Your task to perform on an android device: Go to Reddit Image 0: 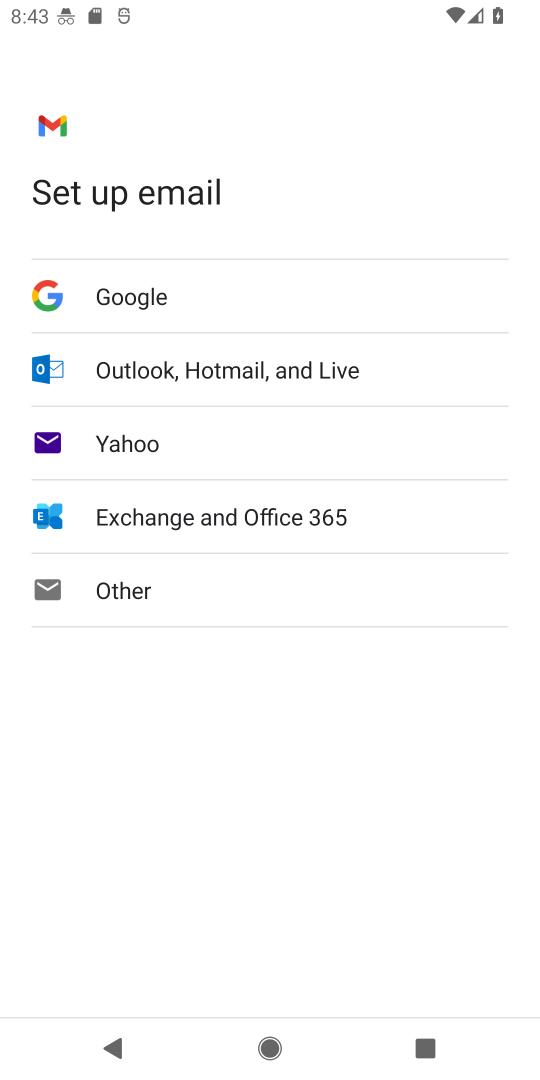
Step 0: press home button
Your task to perform on an android device: Go to Reddit Image 1: 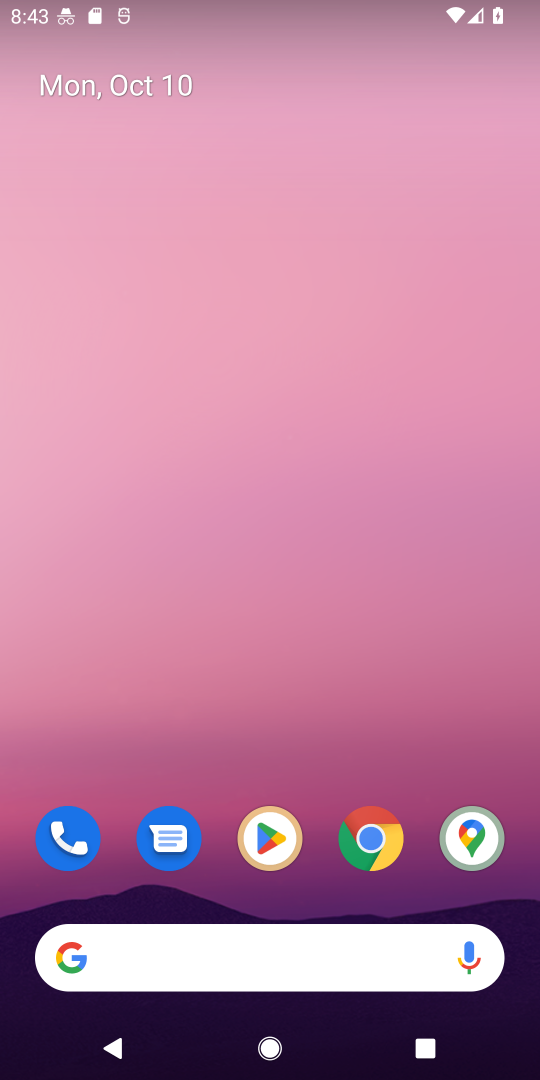
Step 1: drag from (415, 885) to (405, 158)
Your task to perform on an android device: Go to Reddit Image 2: 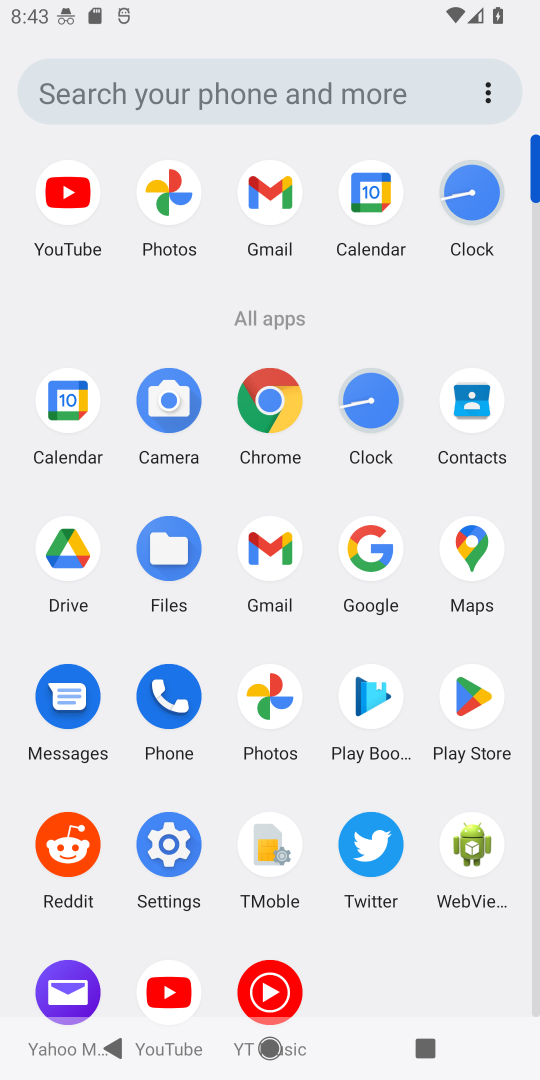
Step 2: click (62, 850)
Your task to perform on an android device: Go to Reddit Image 3: 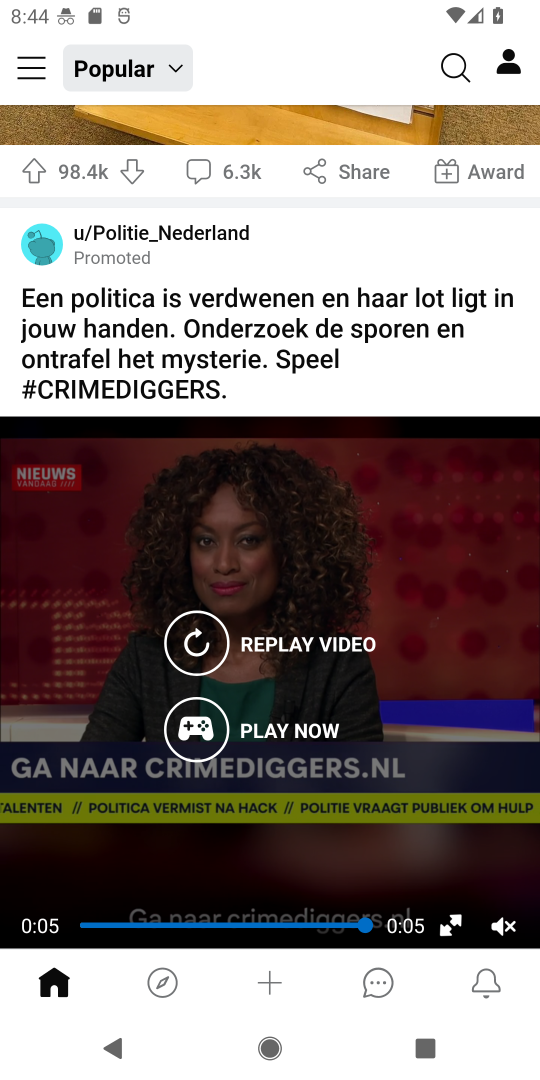
Step 3: task complete